Your task to perform on an android device: Open Amazon Image 0: 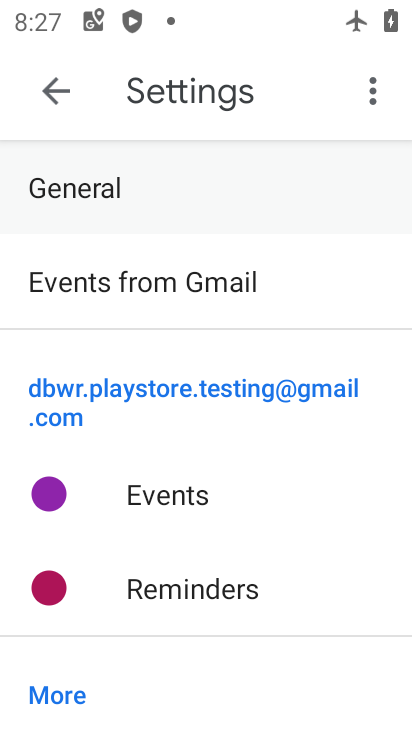
Step 0: press home button
Your task to perform on an android device: Open Amazon Image 1: 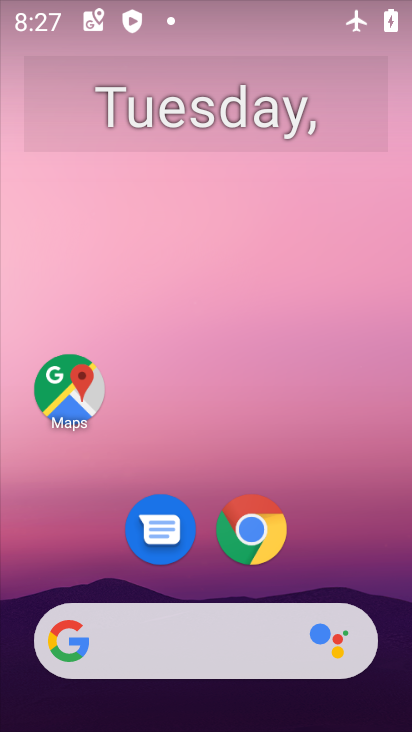
Step 1: drag from (208, 647) to (220, 152)
Your task to perform on an android device: Open Amazon Image 2: 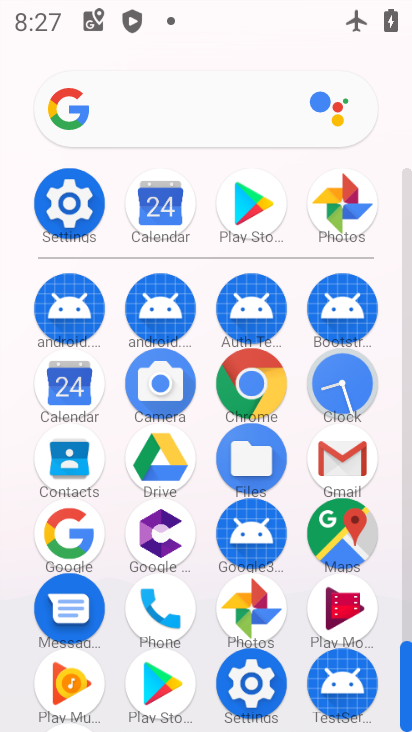
Step 2: click (261, 392)
Your task to perform on an android device: Open Amazon Image 3: 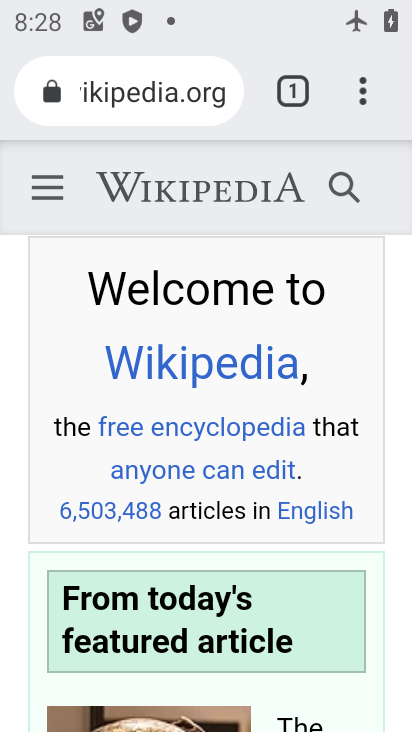
Step 3: click (195, 97)
Your task to perform on an android device: Open Amazon Image 4: 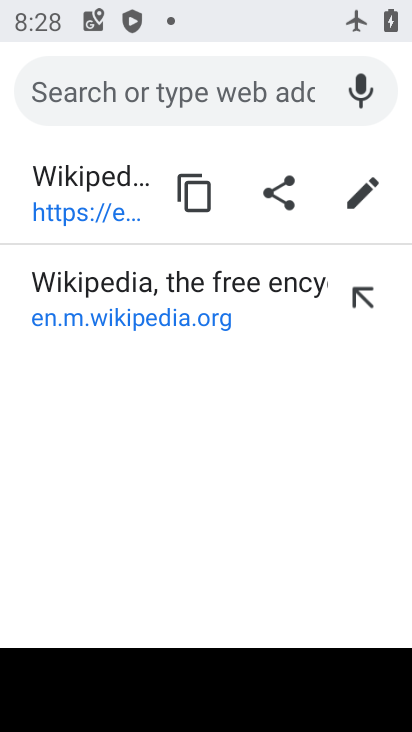
Step 4: type "amazon"
Your task to perform on an android device: Open Amazon Image 5: 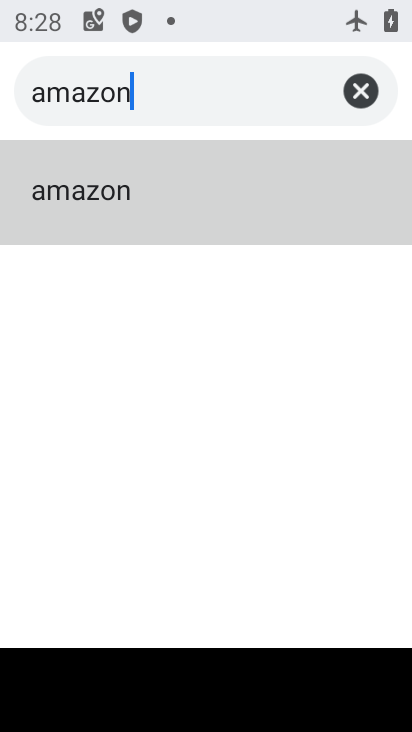
Step 5: click (181, 207)
Your task to perform on an android device: Open Amazon Image 6: 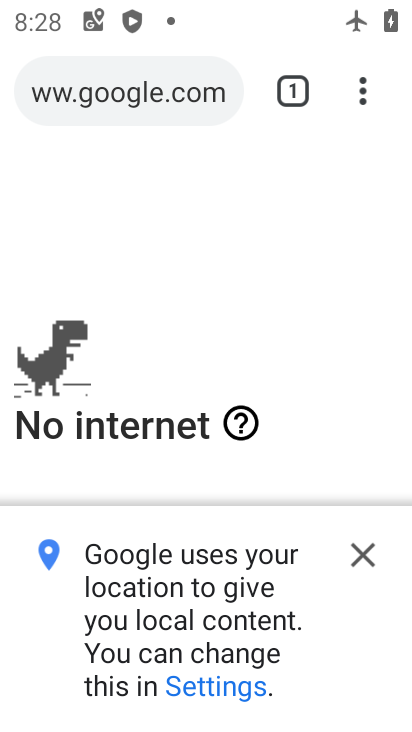
Step 6: task complete